Your task to perform on an android device: Open my contact list Image 0: 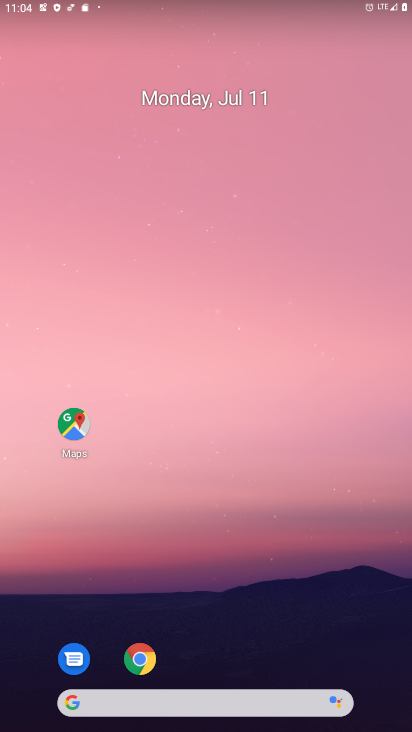
Step 0: drag from (272, 679) to (308, 211)
Your task to perform on an android device: Open my contact list Image 1: 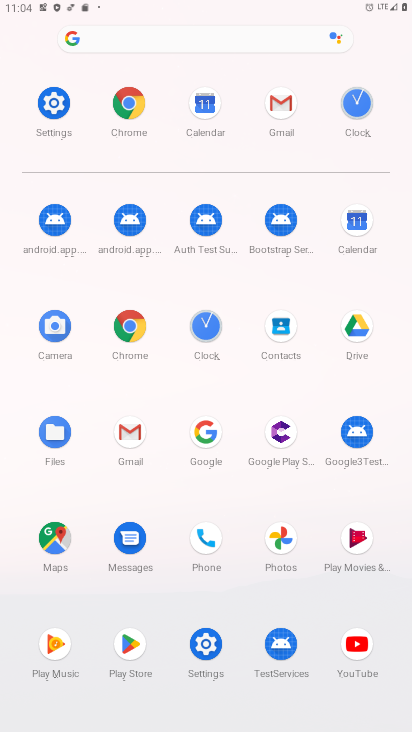
Step 1: click (277, 310)
Your task to perform on an android device: Open my contact list Image 2: 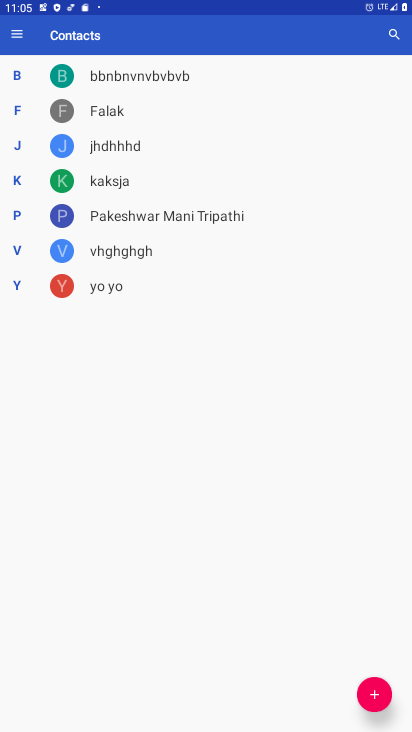
Step 2: task complete